Your task to perform on an android device: Open maps Image 0: 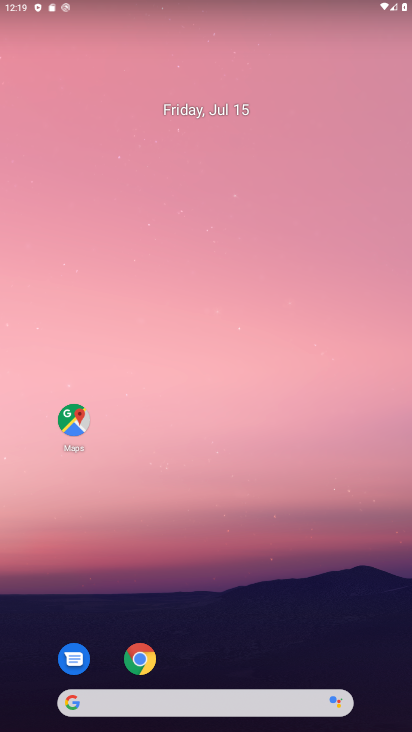
Step 0: click (76, 442)
Your task to perform on an android device: Open maps Image 1: 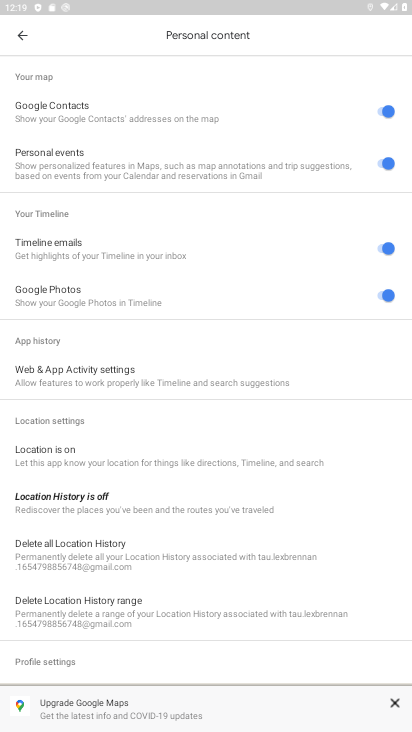
Step 1: press home button
Your task to perform on an android device: Open maps Image 2: 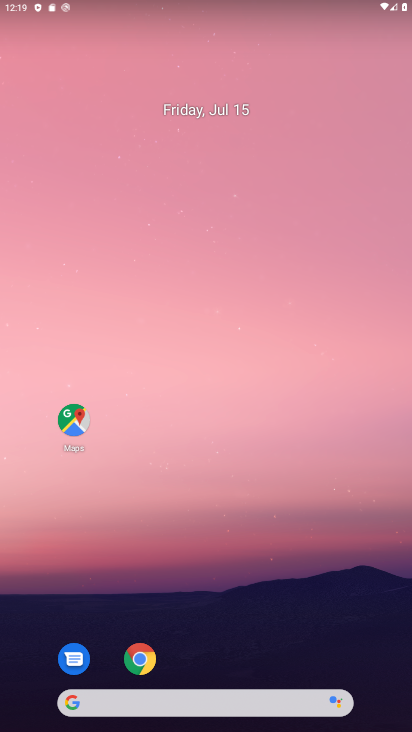
Step 2: click (77, 424)
Your task to perform on an android device: Open maps Image 3: 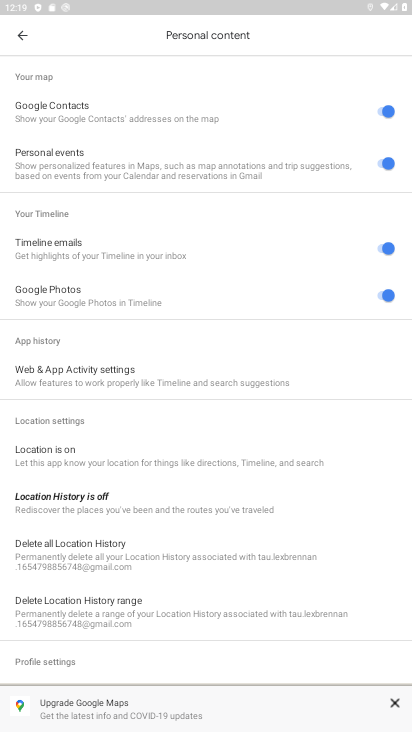
Step 3: click (23, 47)
Your task to perform on an android device: Open maps Image 4: 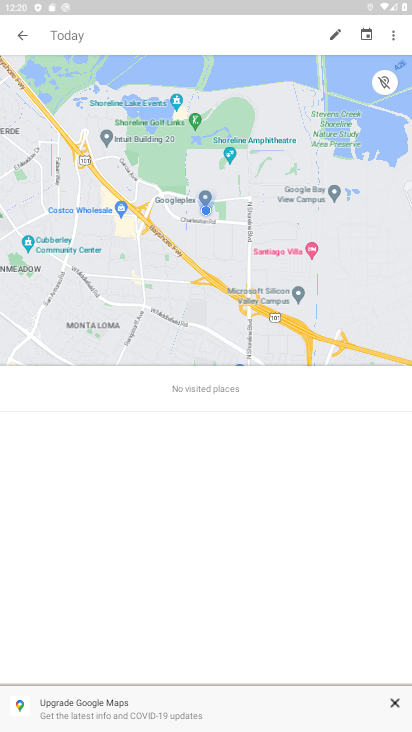
Step 4: click (23, 47)
Your task to perform on an android device: Open maps Image 5: 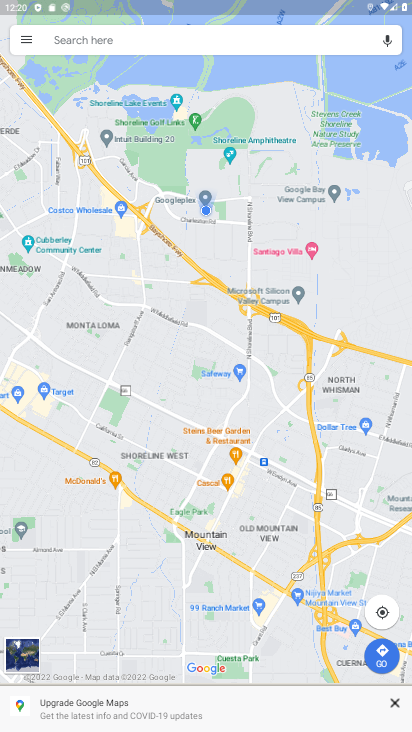
Step 5: task complete